Your task to perform on an android device: turn off data saver in the chrome app Image 0: 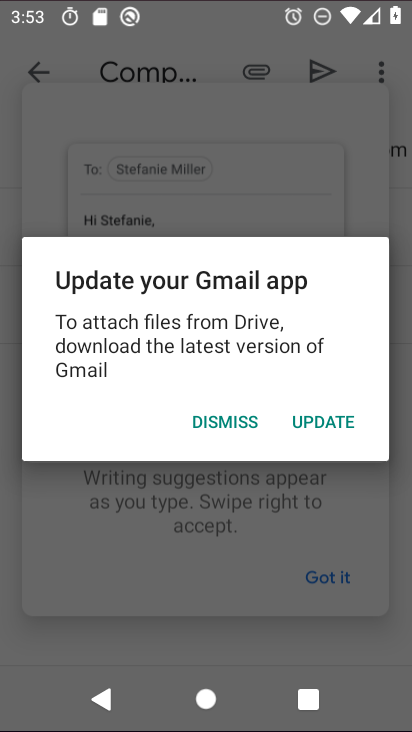
Step 0: click (255, 519)
Your task to perform on an android device: turn off data saver in the chrome app Image 1: 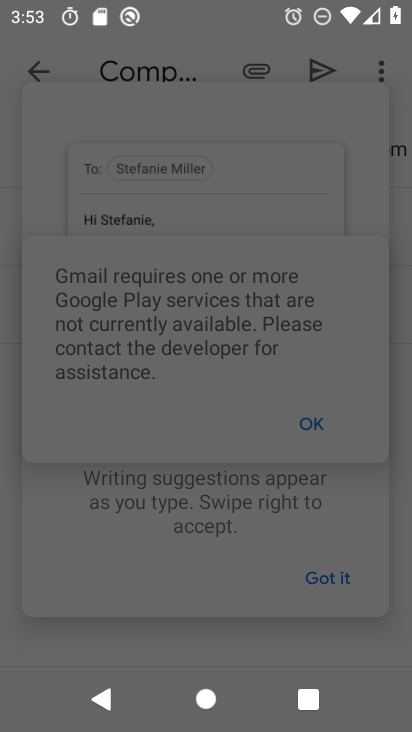
Step 1: press home button
Your task to perform on an android device: turn off data saver in the chrome app Image 2: 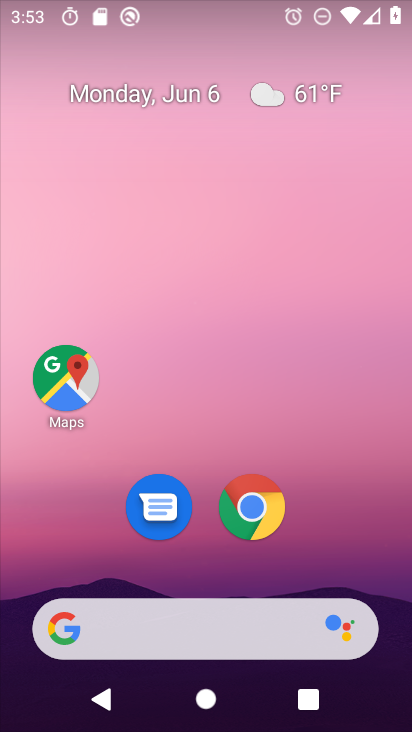
Step 2: click (258, 518)
Your task to perform on an android device: turn off data saver in the chrome app Image 3: 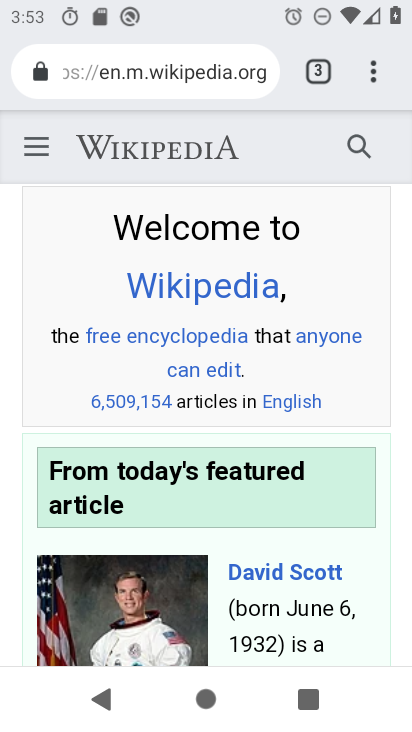
Step 3: click (378, 69)
Your task to perform on an android device: turn off data saver in the chrome app Image 4: 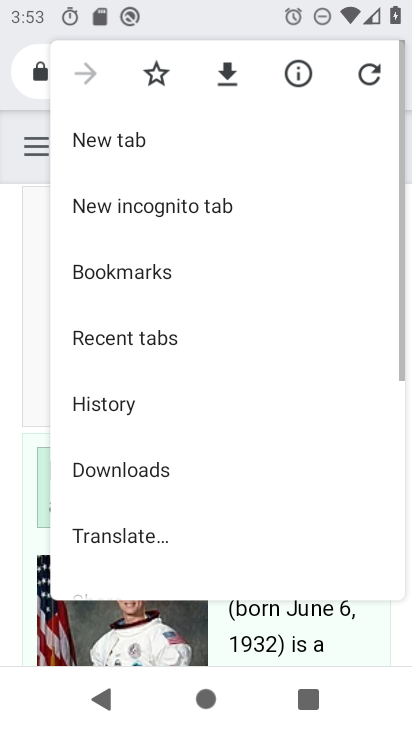
Step 4: drag from (179, 424) to (201, 262)
Your task to perform on an android device: turn off data saver in the chrome app Image 5: 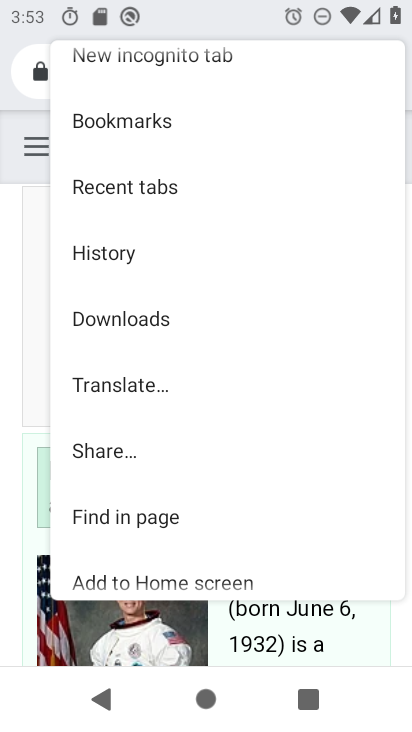
Step 5: drag from (201, 543) to (227, 209)
Your task to perform on an android device: turn off data saver in the chrome app Image 6: 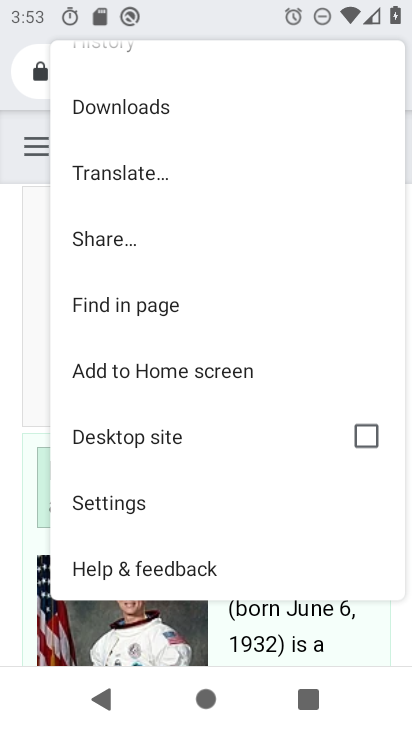
Step 6: click (127, 512)
Your task to perform on an android device: turn off data saver in the chrome app Image 7: 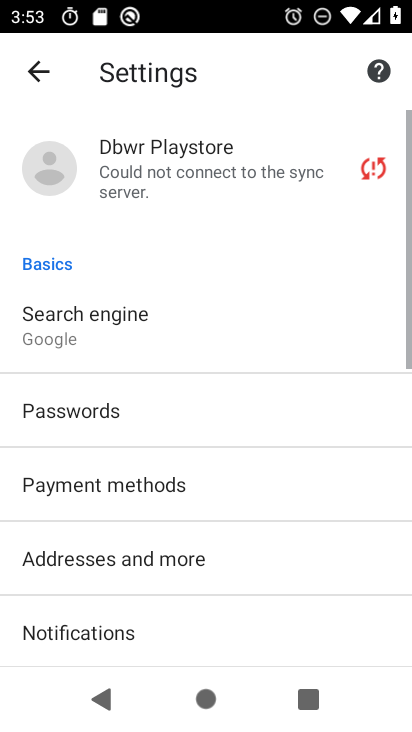
Step 7: drag from (176, 585) to (199, 301)
Your task to perform on an android device: turn off data saver in the chrome app Image 8: 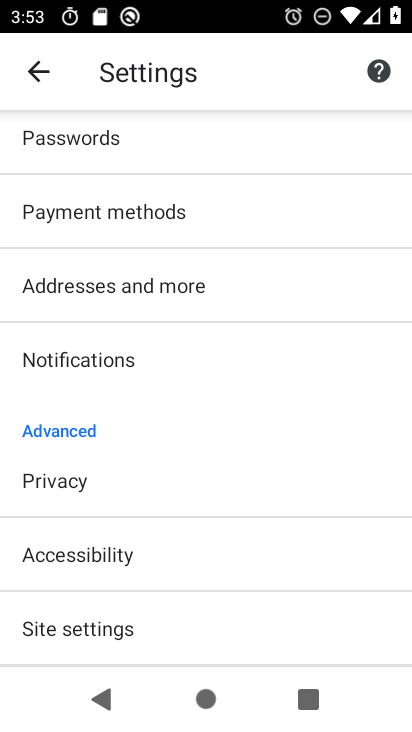
Step 8: drag from (207, 558) to (209, 295)
Your task to perform on an android device: turn off data saver in the chrome app Image 9: 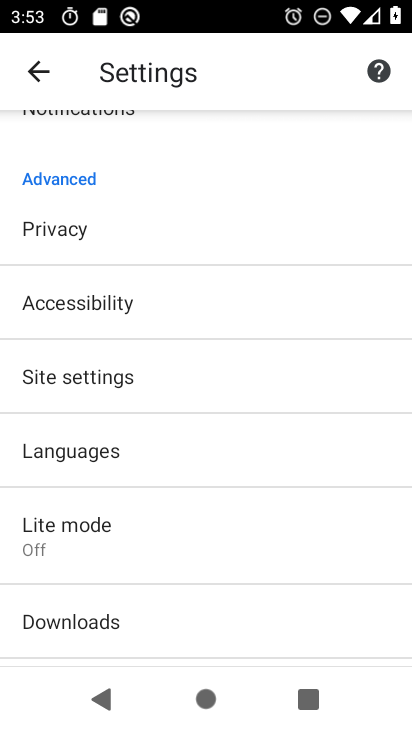
Step 9: click (97, 519)
Your task to perform on an android device: turn off data saver in the chrome app Image 10: 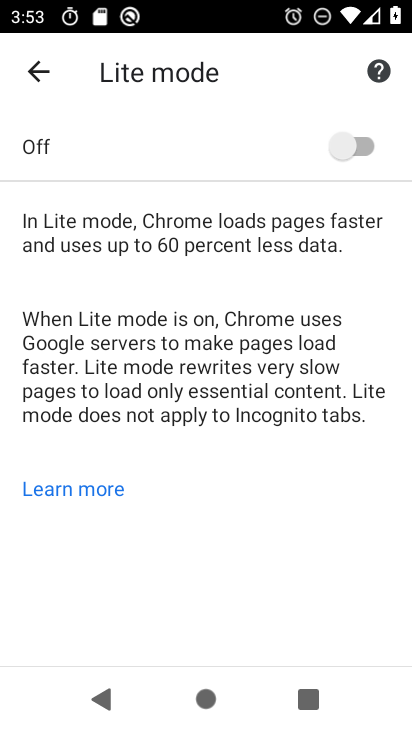
Step 10: task complete